Your task to perform on an android device: Search for Italian restaurants on Maps Image 0: 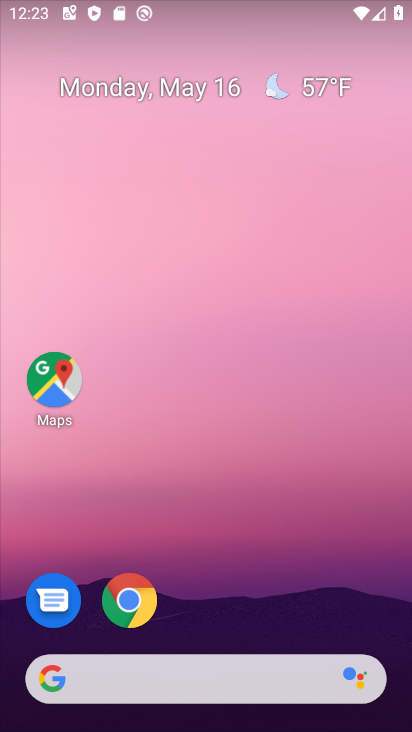
Step 0: click (50, 365)
Your task to perform on an android device: Search for Italian restaurants on Maps Image 1: 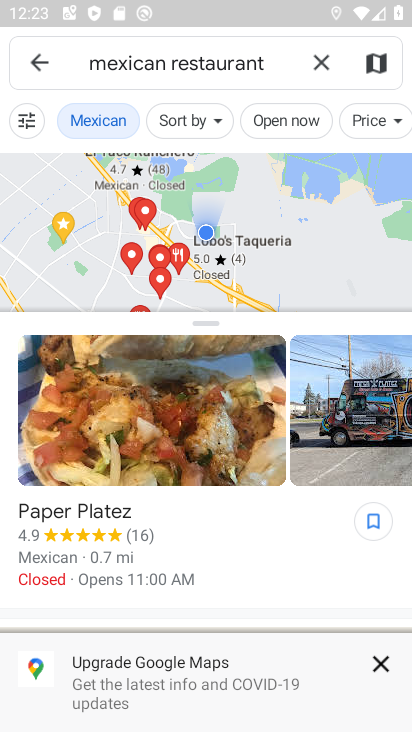
Step 1: click (318, 58)
Your task to perform on an android device: Search for Italian restaurants on Maps Image 2: 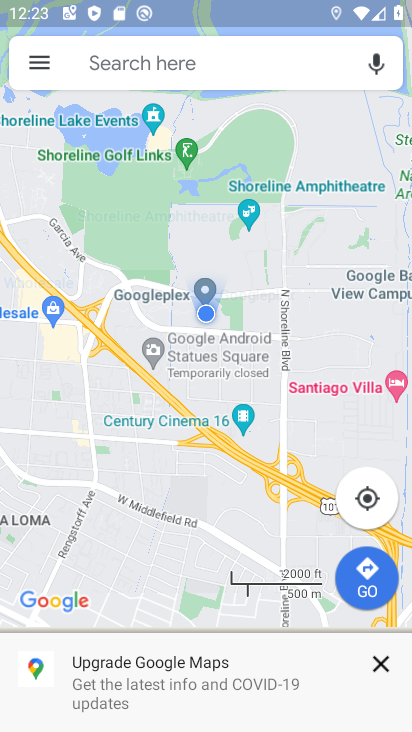
Step 2: click (196, 60)
Your task to perform on an android device: Search for Italian restaurants on Maps Image 3: 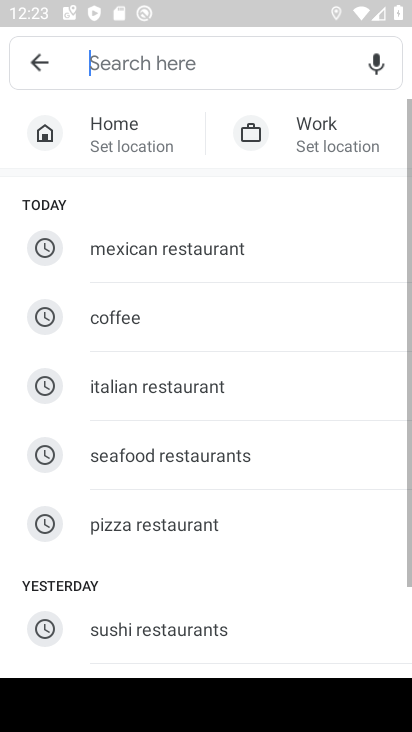
Step 3: click (146, 385)
Your task to perform on an android device: Search for Italian restaurants on Maps Image 4: 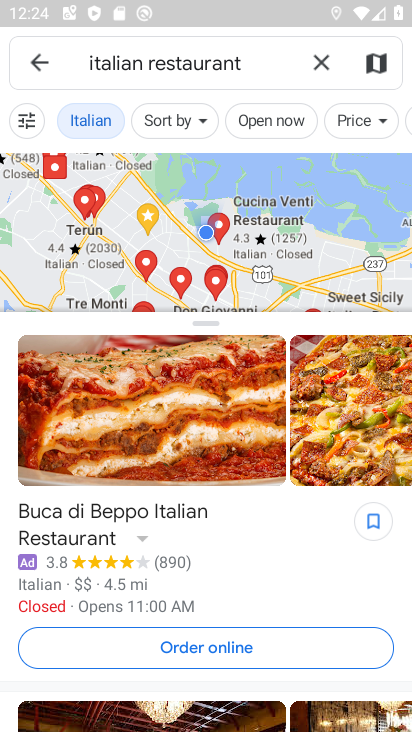
Step 4: task complete